Your task to perform on an android device: turn off javascript in the chrome app Image 0: 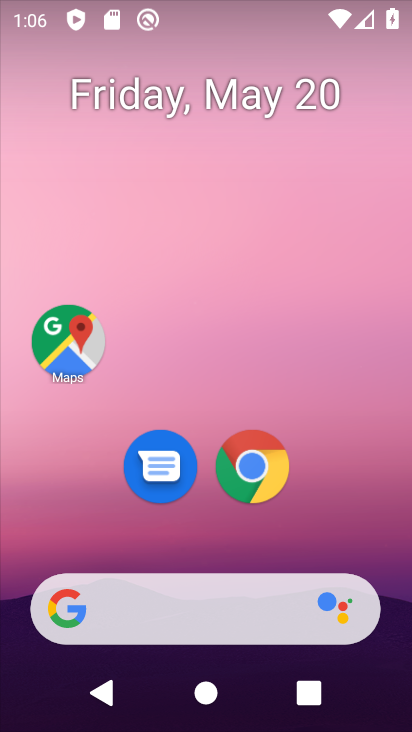
Step 0: click (269, 460)
Your task to perform on an android device: turn off javascript in the chrome app Image 1: 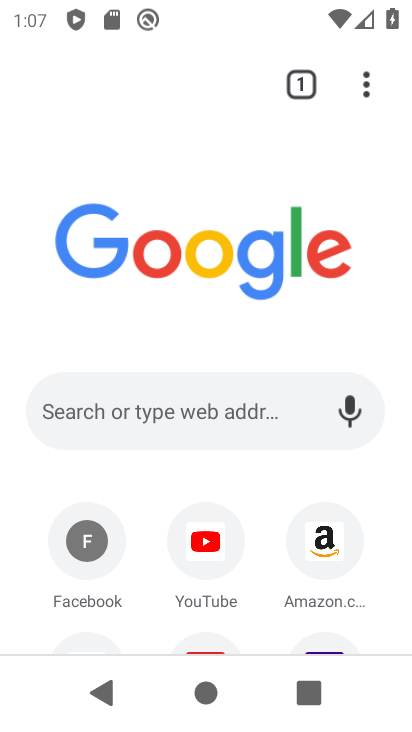
Step 1: click (371, 97)
Your task to perform on an android device: turn off javascript in the chrome app Image 2: 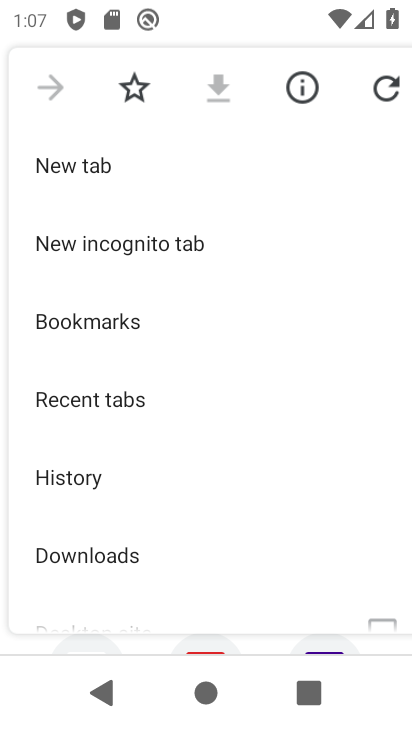
Step 2: drag from (236, 564) to (261, 221)
Your task to perform on an android device: turn off javascript in the chrome app Image 3: 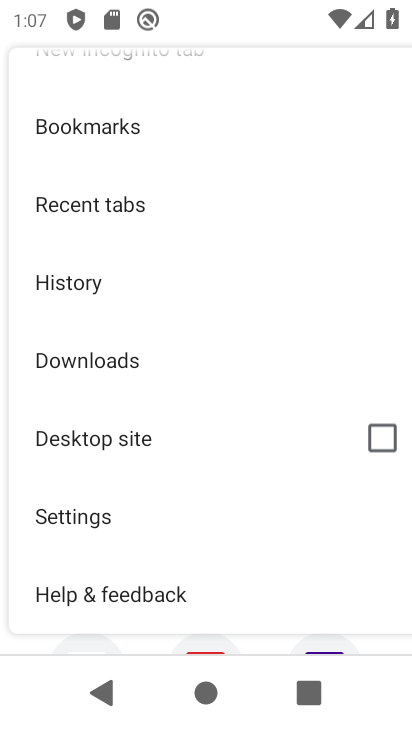
Step 3: drag from (230, 576) to (248, 267)
Your task to perform on an android device: turn off javascript in the chrome app Image 4: 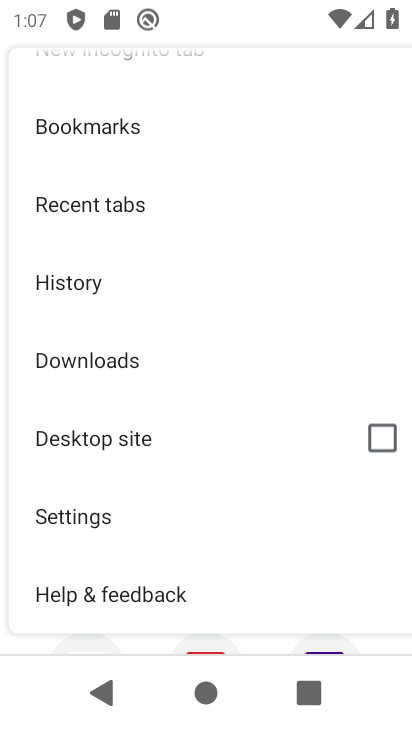
Step 4: click (181, 524)
Your task to perform on an android device: turn off javascript in the chrome app Image 5: 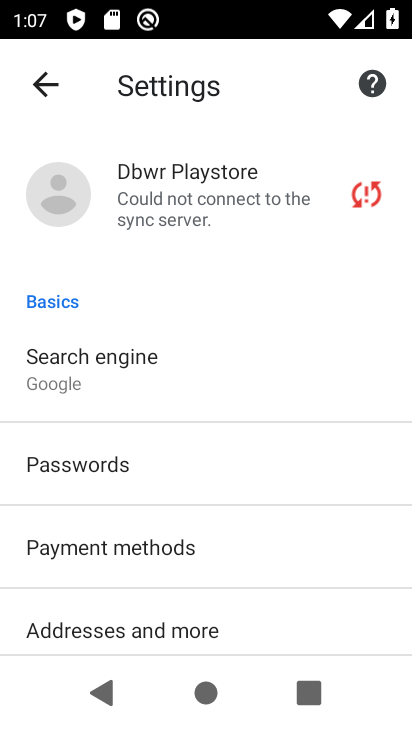
Step 5: drag from (206, 576) to (259, 322)
Your task to perform on an android device: turn off javascript in the chrome app Image 6: 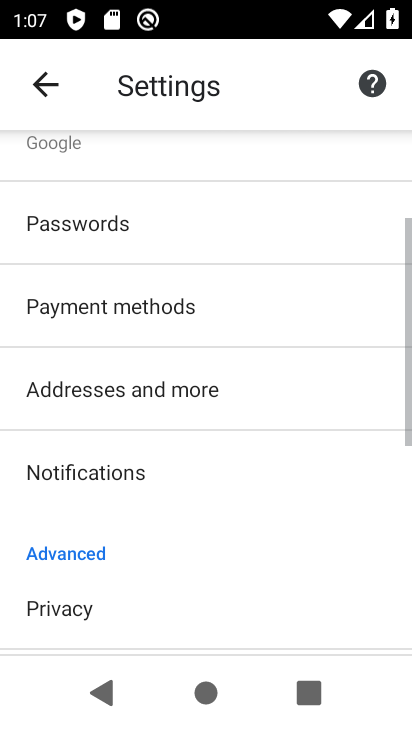
Step 6: drag from (253, 564) to (296, 276)
Your task to perform on an android device: turn off javascript in the chrome app Image 7: 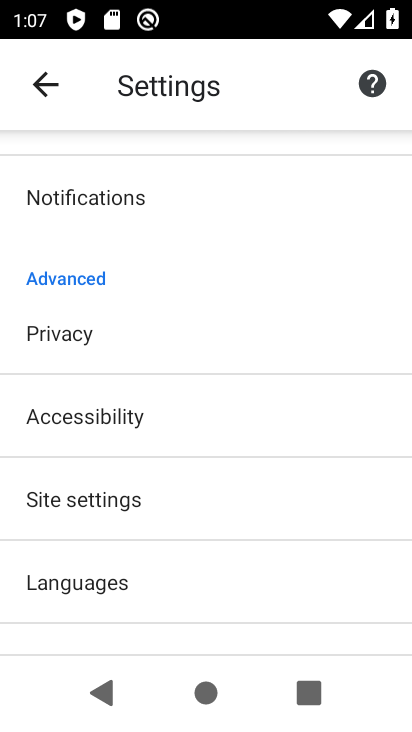
Step 7: drag from (218, 526) to (255, 354)
Your task to perform on an android device: turn off javascript in the chrome app Image 8: 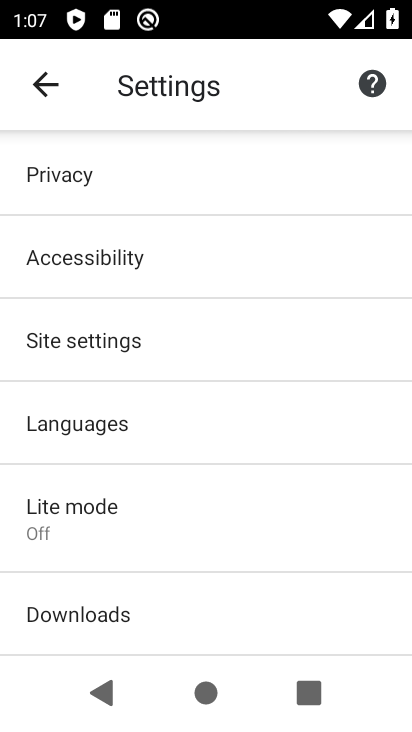
Step 8: drag from (190, 452) to (210, 337)
Your task to perform on an android device: turn off javascript in the chrome app Image 9: 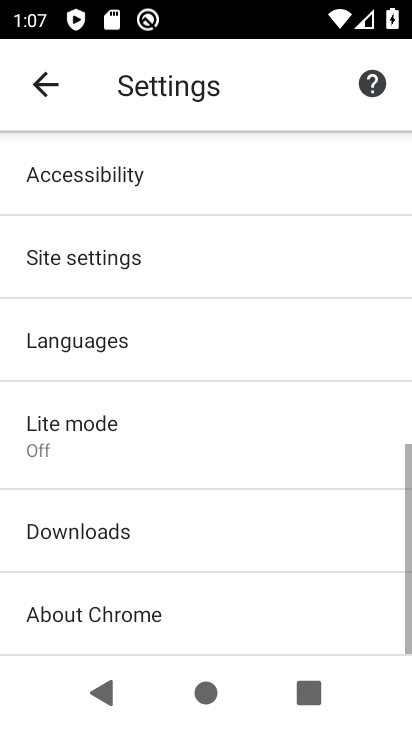
Step 9: drag from (195, 484) to (235, 443)
Your task to perform on an android device: turn off javascript in the chrome app Image 10: 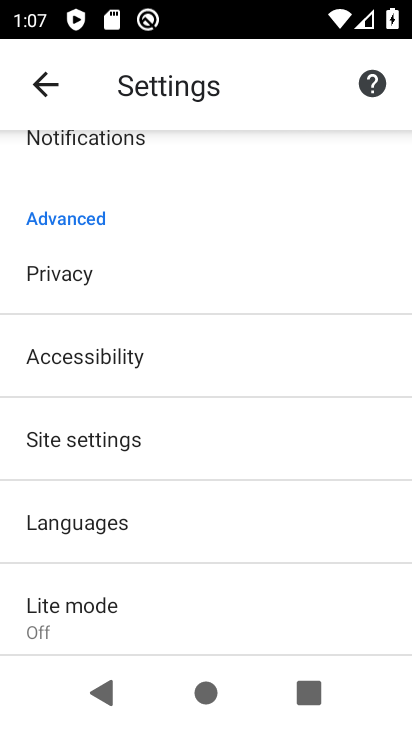
Step 10: click (155, 451)
Your task to perform on an android device: turn off javascript in the chrome app Image 11: 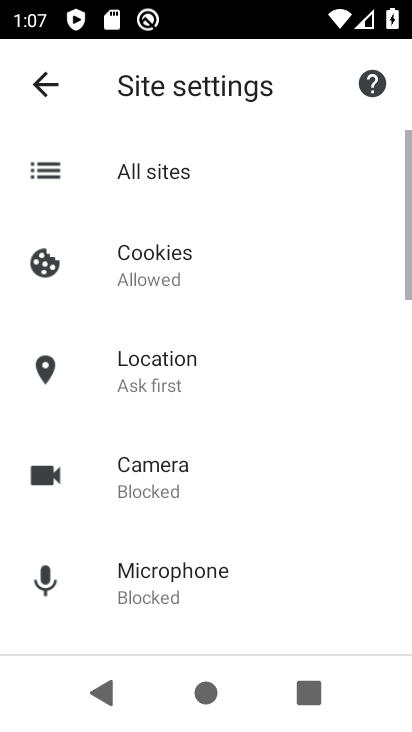
Step 11: drag from (255, 563) to (307, 301)
Your task to perform on an android device: turn off javascript in the chrome app Image 12: 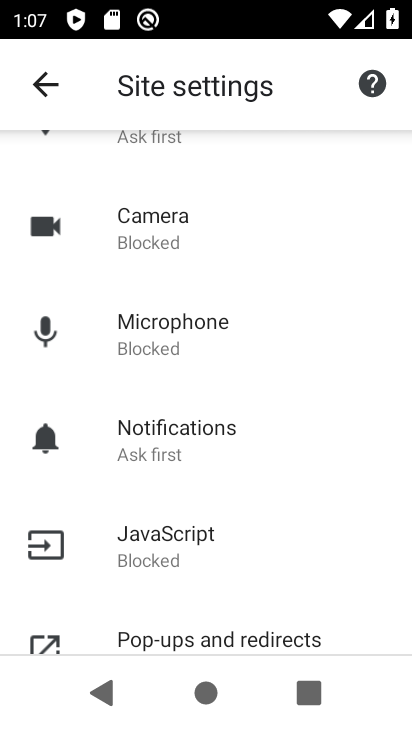
Step 12: click (248, 543)
Your task to perform on an android device: turn off javascript in the chrome app Image 13: 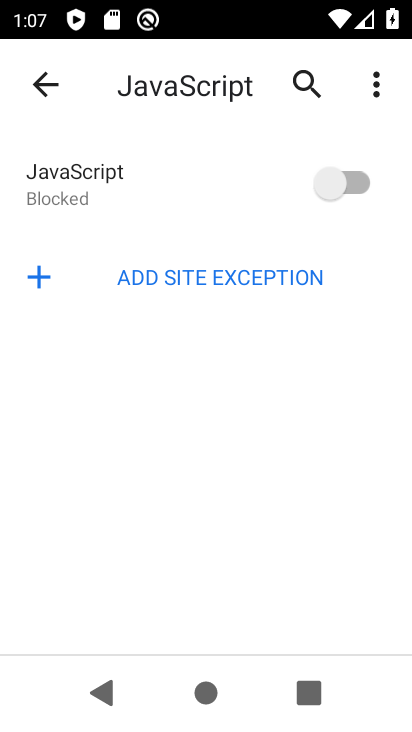
Step 13: task complete